Your task to perform on an android device: clear history in the chrome app Image 0: 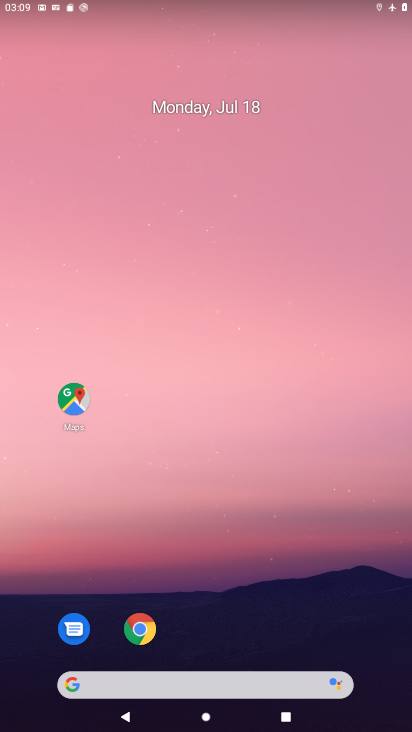
Step 0: drag from (308, 605) to (382, 57)
Your task to perform on an android device: clear history in the chrome app Image 1: 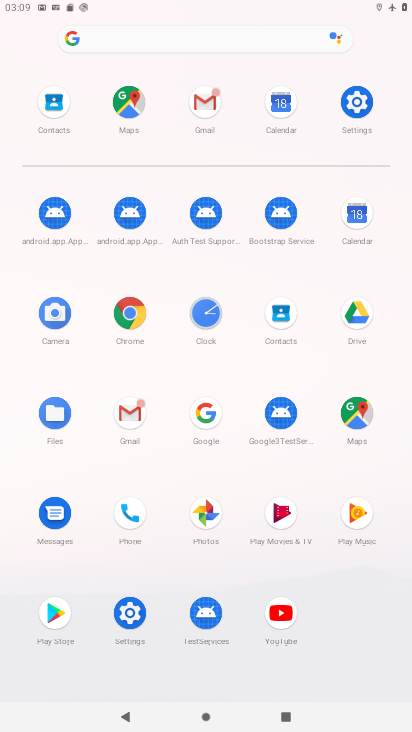
Step 1: click (127, 310)
Your task to perform on an android device: clear history in the chrome app Image 2: 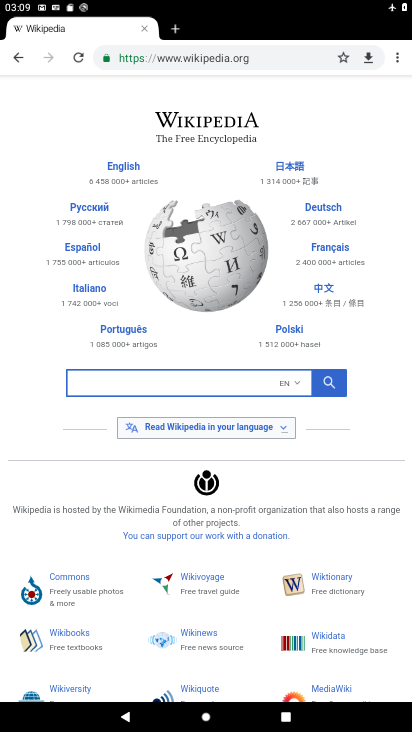
Step 2: click (396, 61)
Your task to perform on an android device: clear history in the chrome app Image 3: 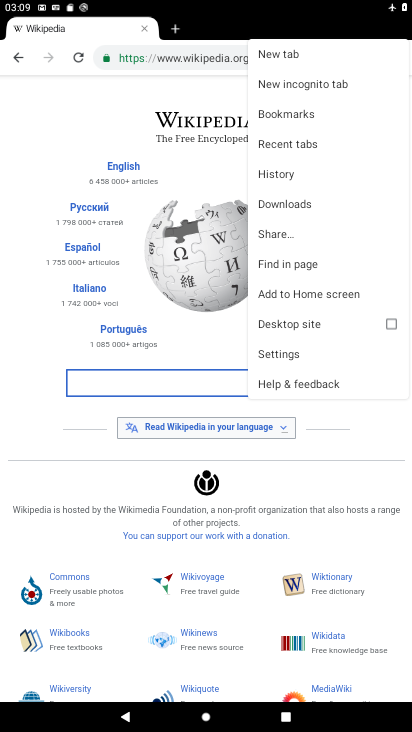
Step 3: click (288, 168)
Your task to perform on an android device: clear history in the chrome app Image 4: 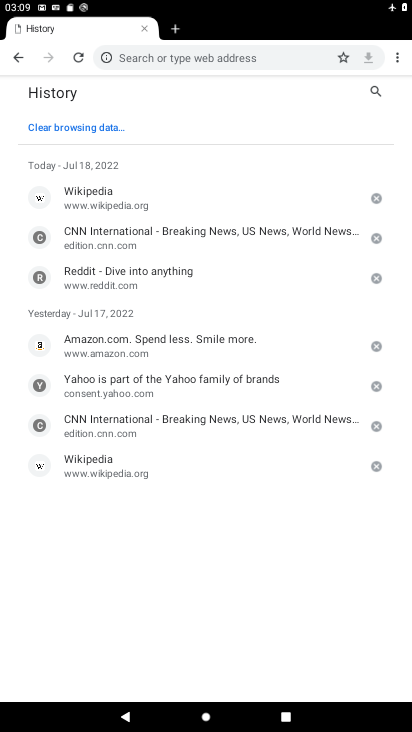
Step 4: click (82, 117)
Your task to perform on an android device: clear history in the chrome app Image 5: 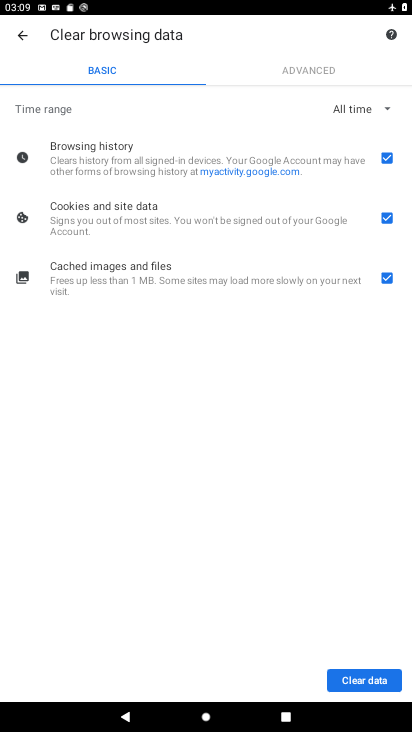
Step 5: click (366, 679)
Your task to perform on an android device: clear history in the chrome app Image 6: 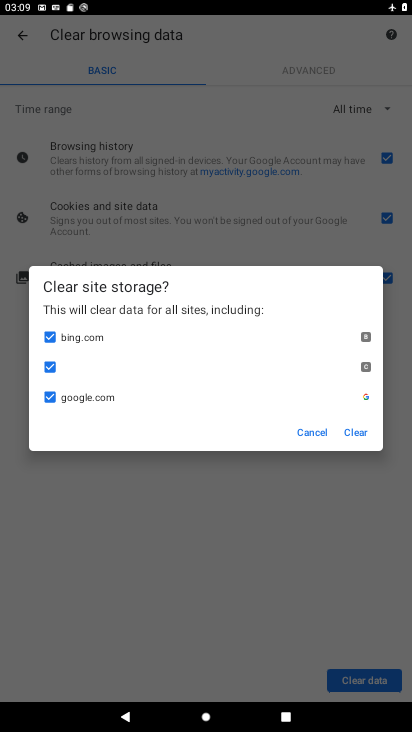
Step 6: click (343, 432)
Your task to perform on an android device: clear history in the chrome app Image 7: 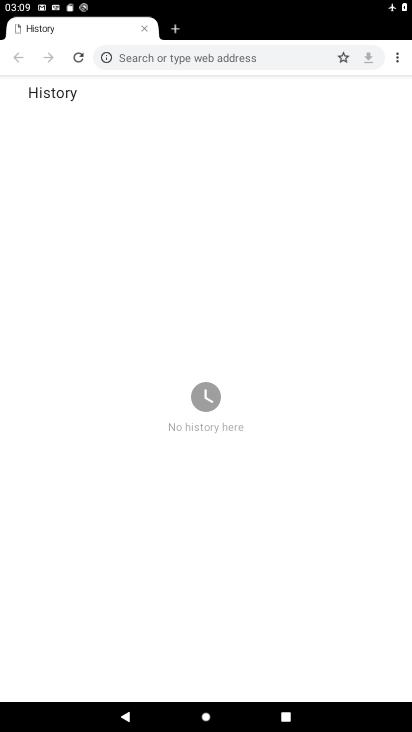
Step 7: task complete